Your task to perform on an android device: Add "logitech g pro" to the cart on costco.com Image 0: 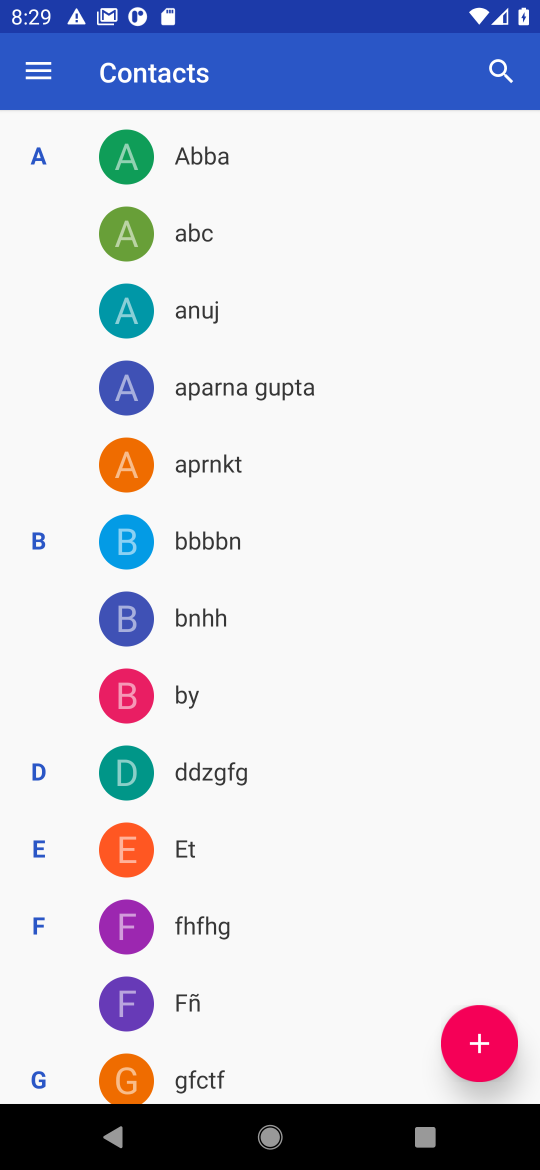
Step 0: press home button
Your task to perform on an android device: Add "logitech g pro" to the cart on costco.com Image 1: 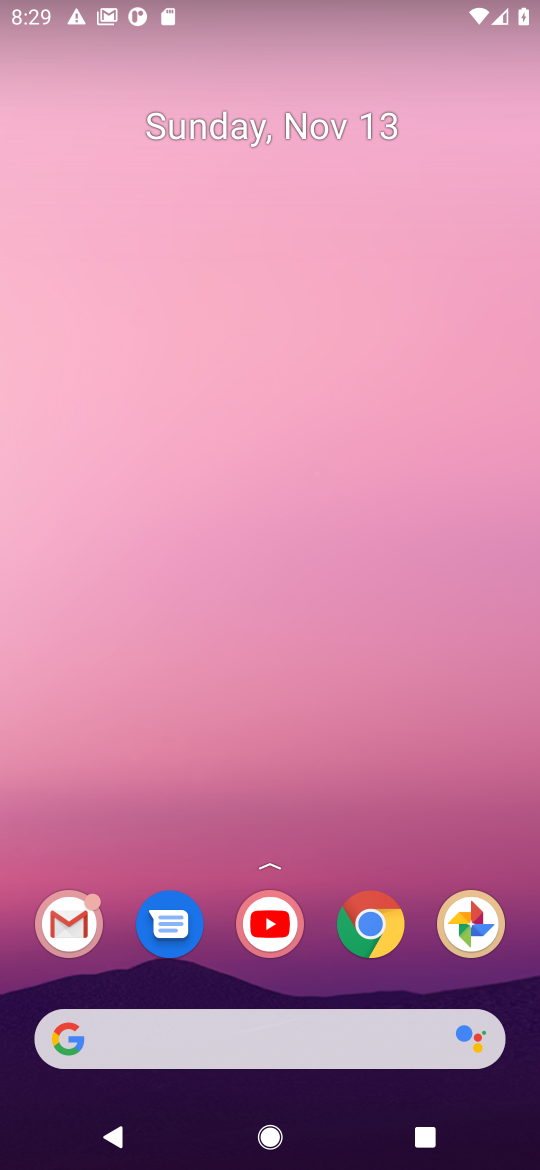
Step 1: click (371, 927)
Your task to perform on an android device: Add "logitech g pro" to the cart on costco.com Image 2: 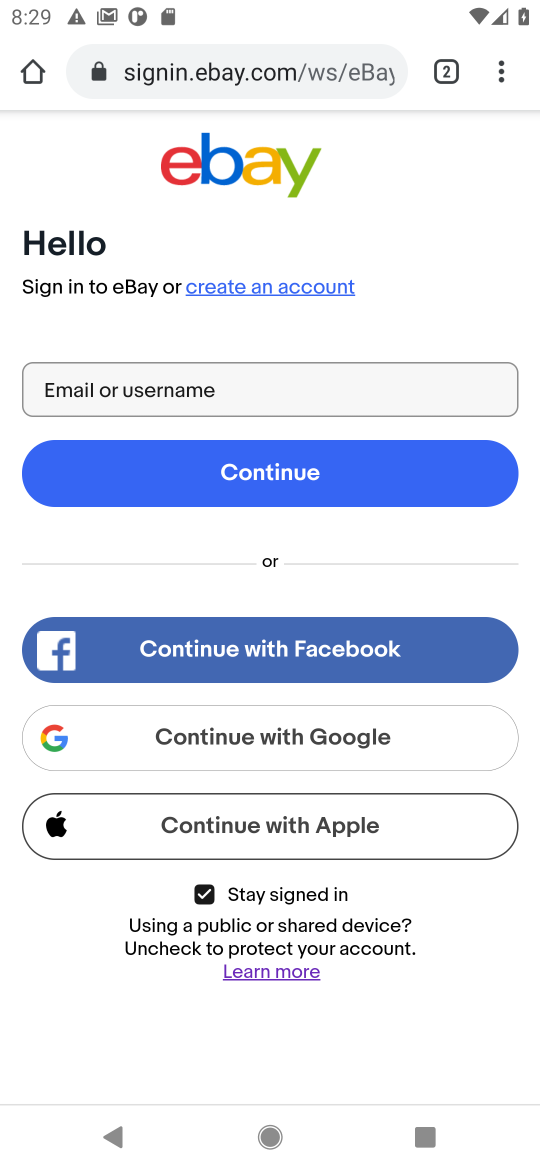
Step 2: click (220, 71)
Your task to perform on an android device: Add "logitech g pro" to the cart on costco.com Image 3: 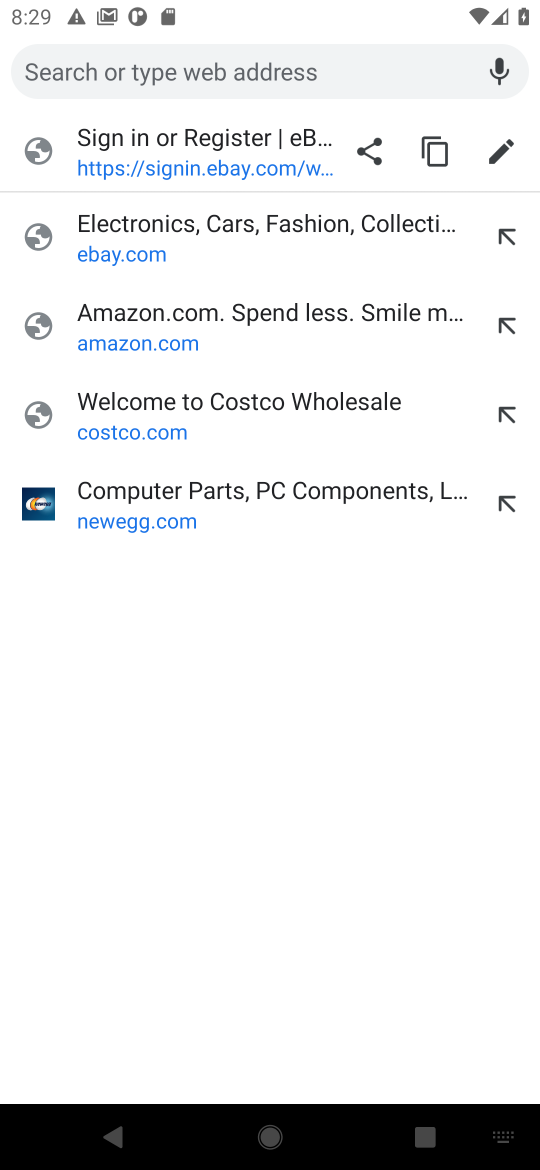
Step 3: click (120, 422)
Your task to perform on an android device: Add "logitech g pro" to the cart on costco.com Image 4: 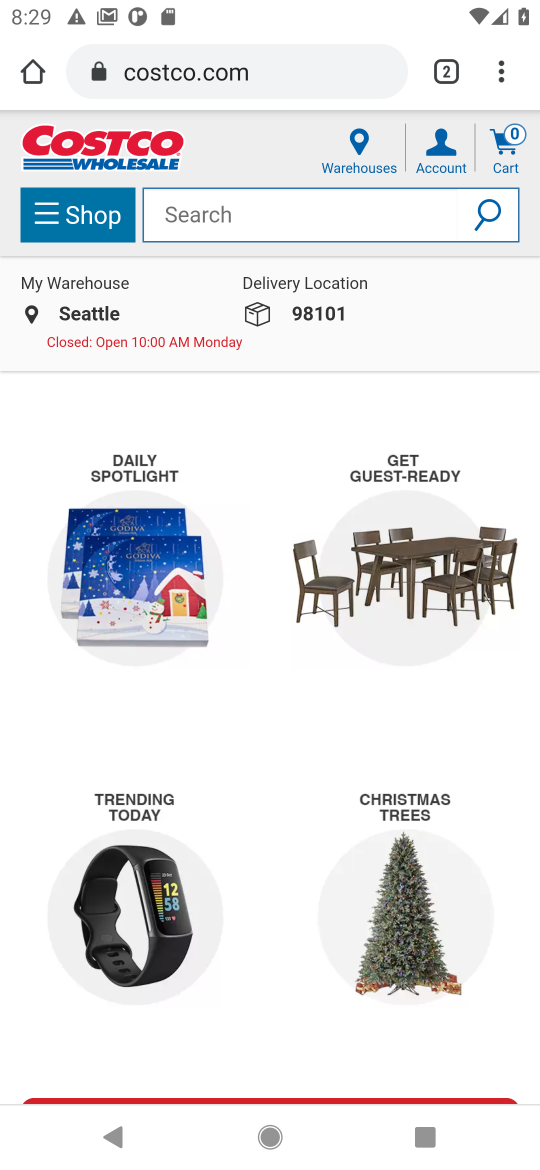
Step 4: click (218, 223)
Your task to perform on an android device: Add "logitech g pro" to the cart on costco.com Image 5: 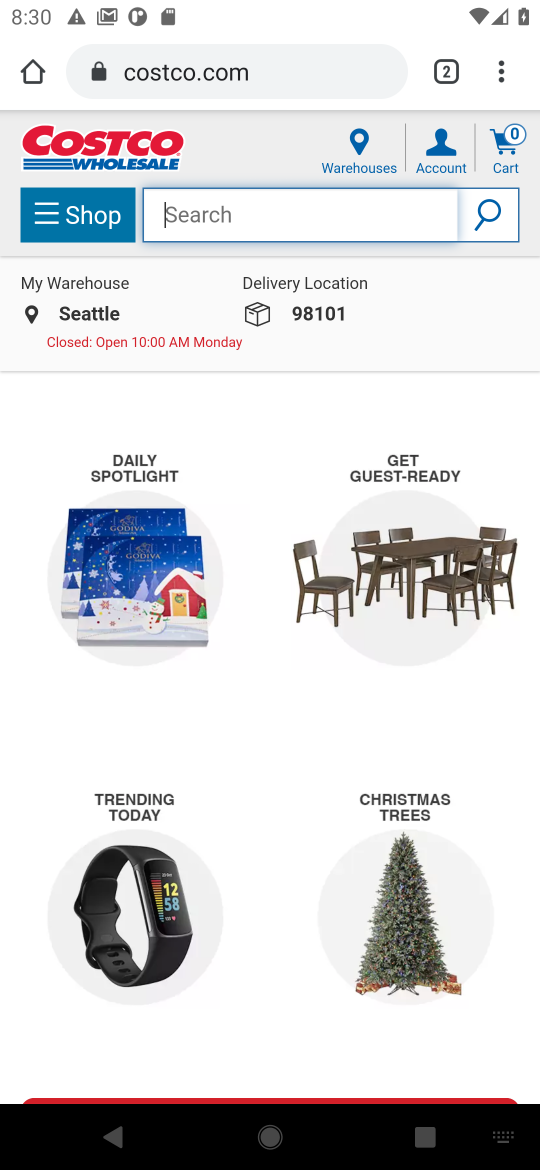
Step 5: type "logitech g pro"
Your task to perform on an android device: Add "logitech g pro" to the cart on costco.com Image 6: 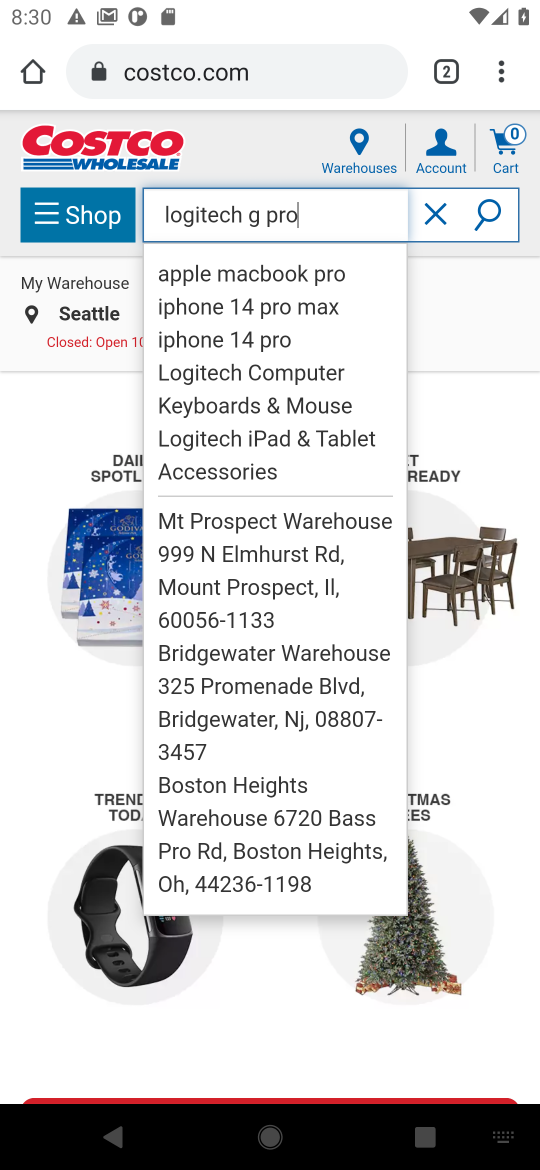
Step 6: click (506, 196)
Your task to perform on an android device: Add "logitech g pro" to the cart on costco.com Image 7: 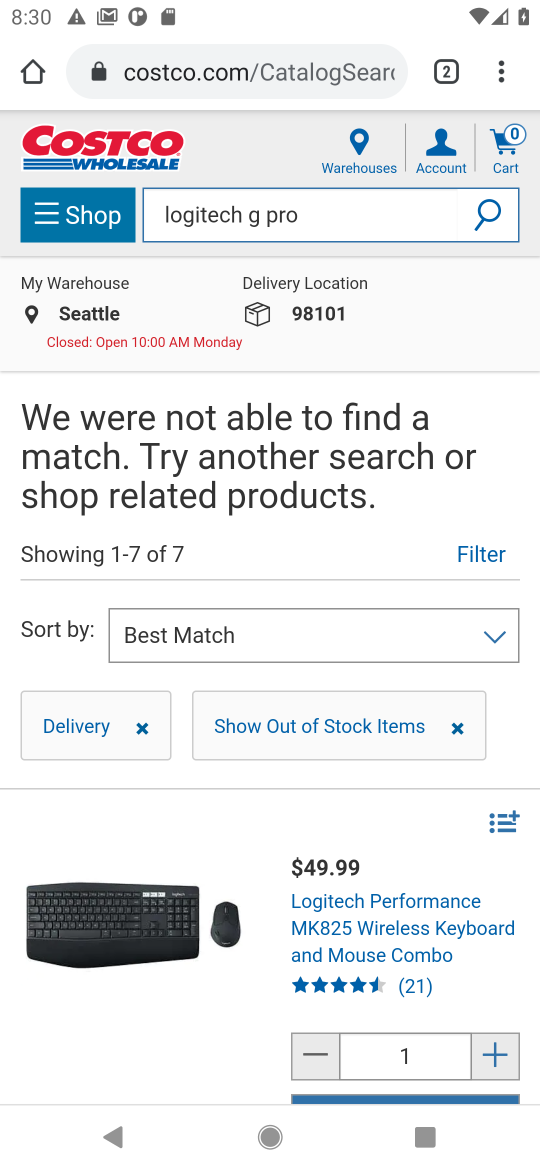
Step 7: task complete